Your task to perform on an android device: check google app version Image 0: 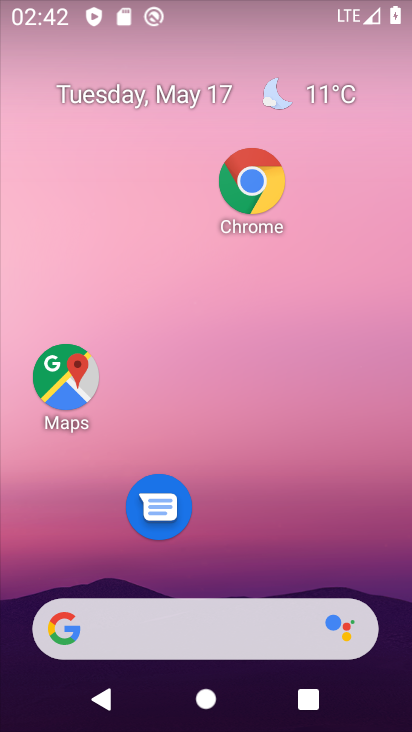
Step 0: drag from (192, 581) to (226, 163)
Your task to perform on an android device: check google app version Image 1: 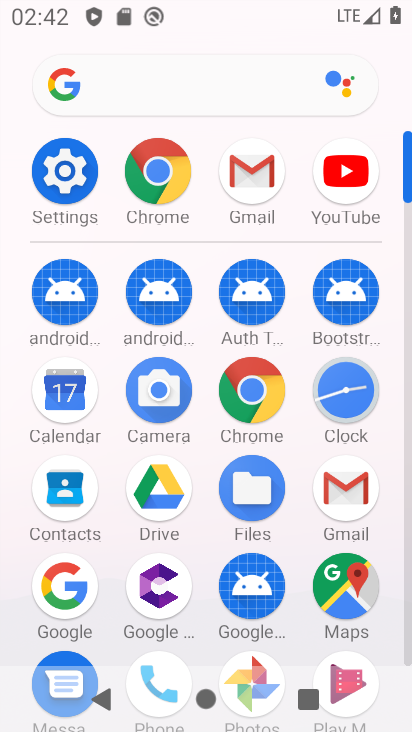
Step 1: click (55, 598)
Your task to perform on an android device: check google app version Image 2: 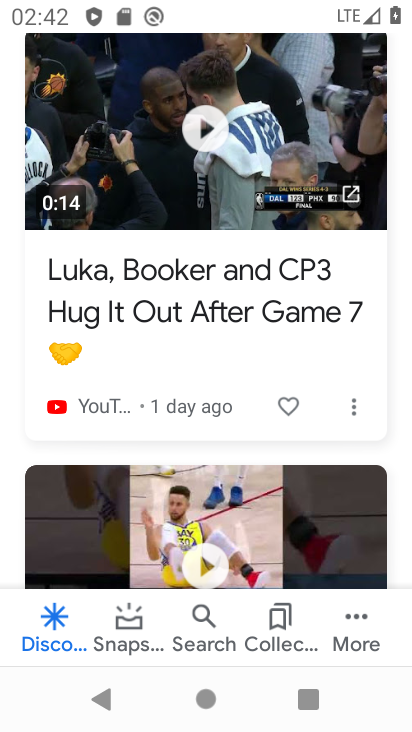
Step 2: click (360, 614)
Your task to perform on an android device: check google app version Image 3: 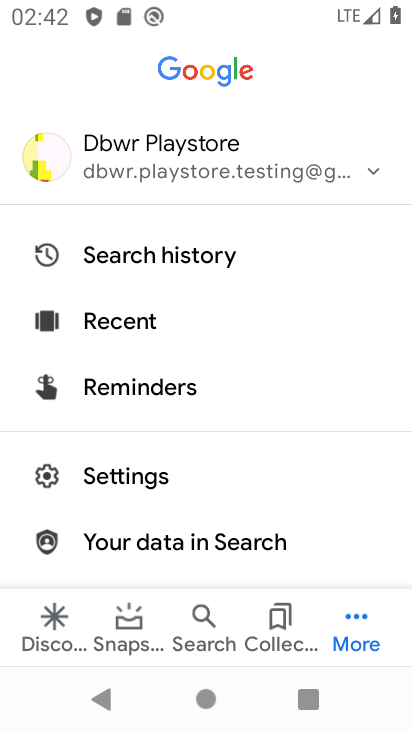
Step 3: click (181, 460)
Your task to perform on an android device: check google app version Image 4: 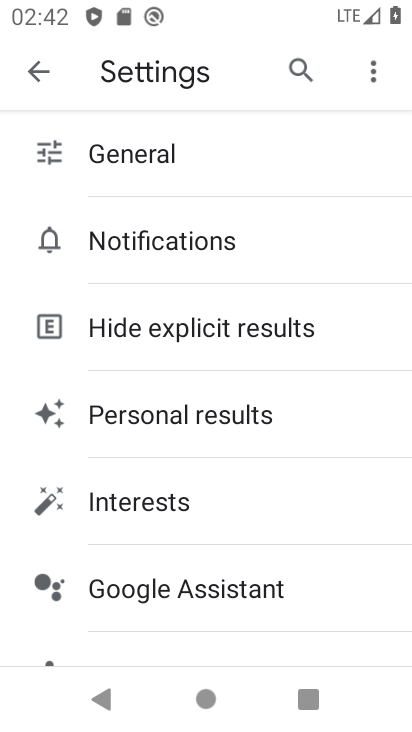
Step 4: drag from (117, 550) to (163, 153)
Your task to perform on an android device: check google app version Image 5: 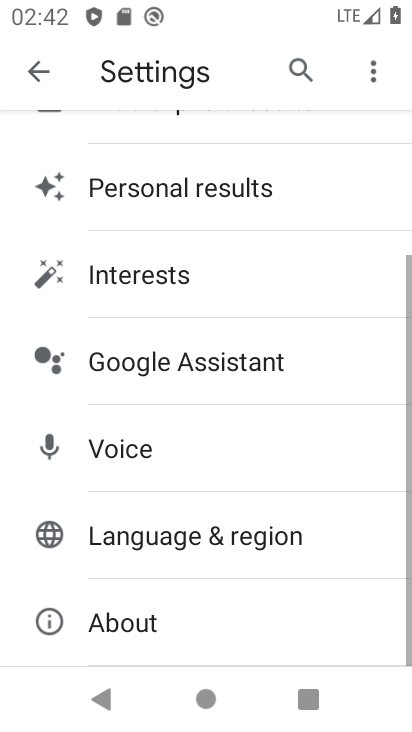
Step 5: click (185, 609)
Your task to perform on an android device: check google app version Image 6: 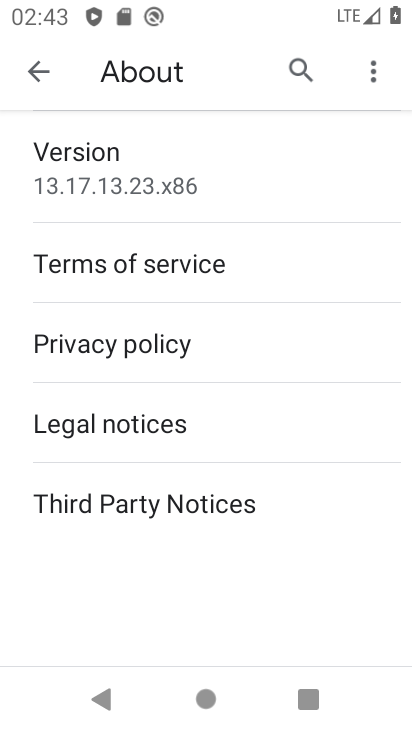
Step 6: task complete